Your task to perform on an android device: Search for "jbl flip 4" on ebay, select the first entry, add it to the cart, then select checkout. Image 0: 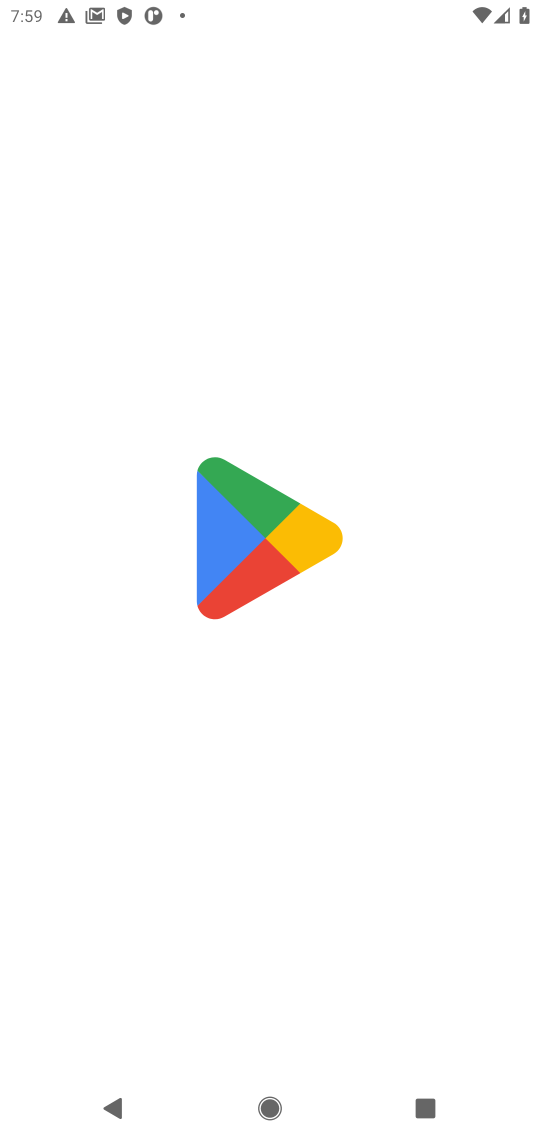
Step 0: press home button
Your task to perform on an android device: Search for "jbl flip 4" on ebay, select the first entry, add it to the cart, then select checkout. Image 1: 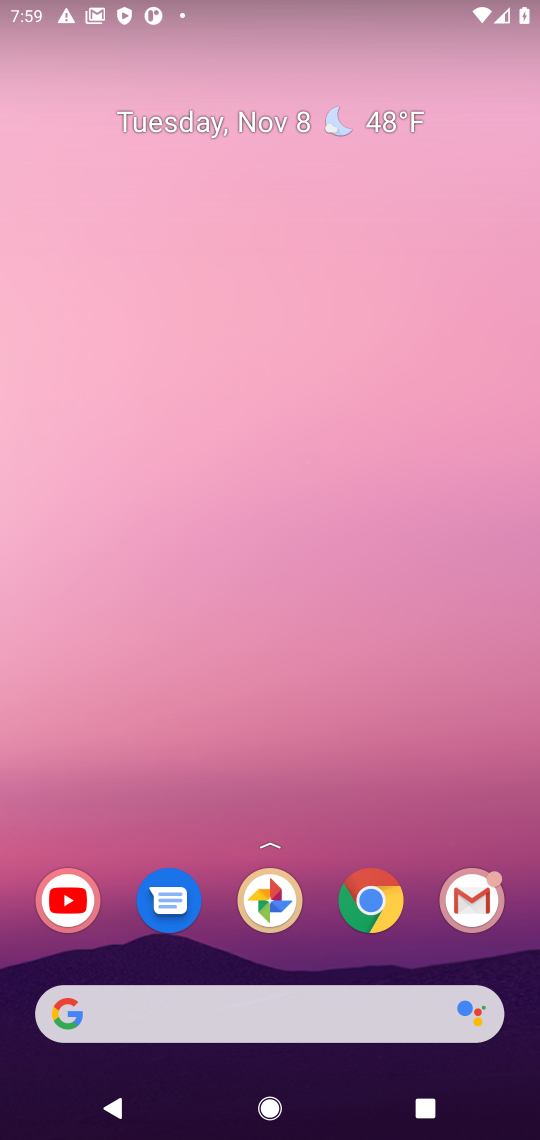
Step 1: click (376, 887)
Your task to perform on an android device: Search for "jbl flip 4" on ebay, select the first entry, add it to the cart, then select checkout. Image 2: 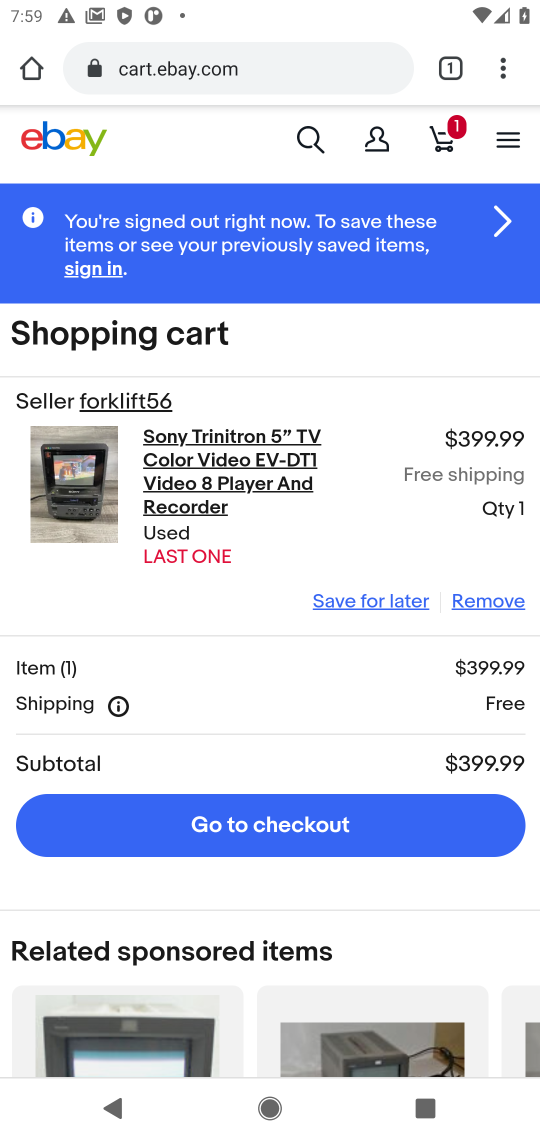
Step 2: click (147, 69)
Your task to perform on an android device: Search for "jbl flip 4" on ebay, select the first entry, add it to the cart, then select checkout. Image 3: 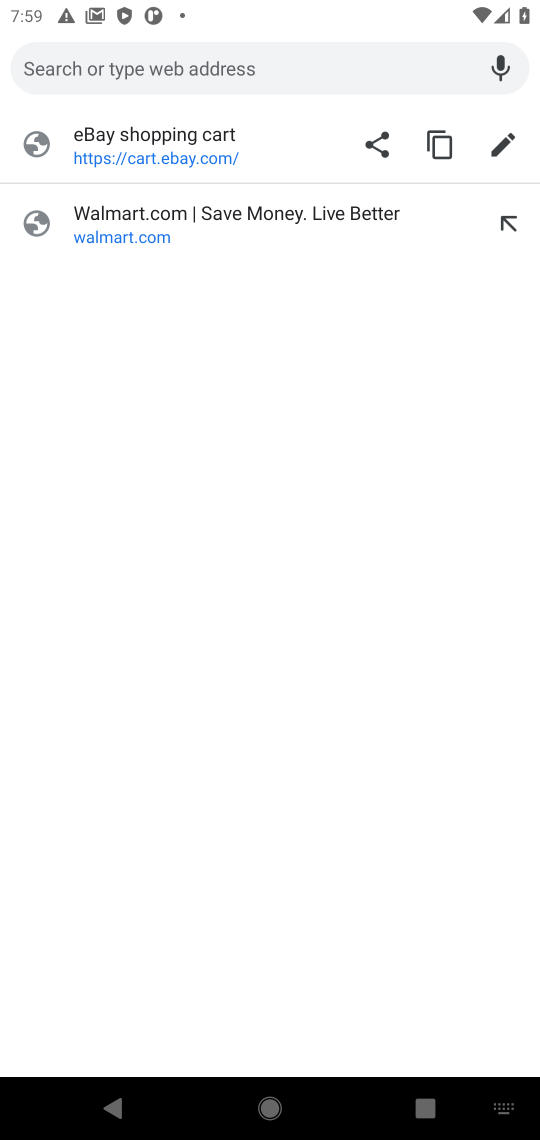
Step 3: type "ebay"
Your task to perform on an android device: Search for "jbl flip 4" on ebay, select the first entry, add it to the cart, then select checkout. Image 4: 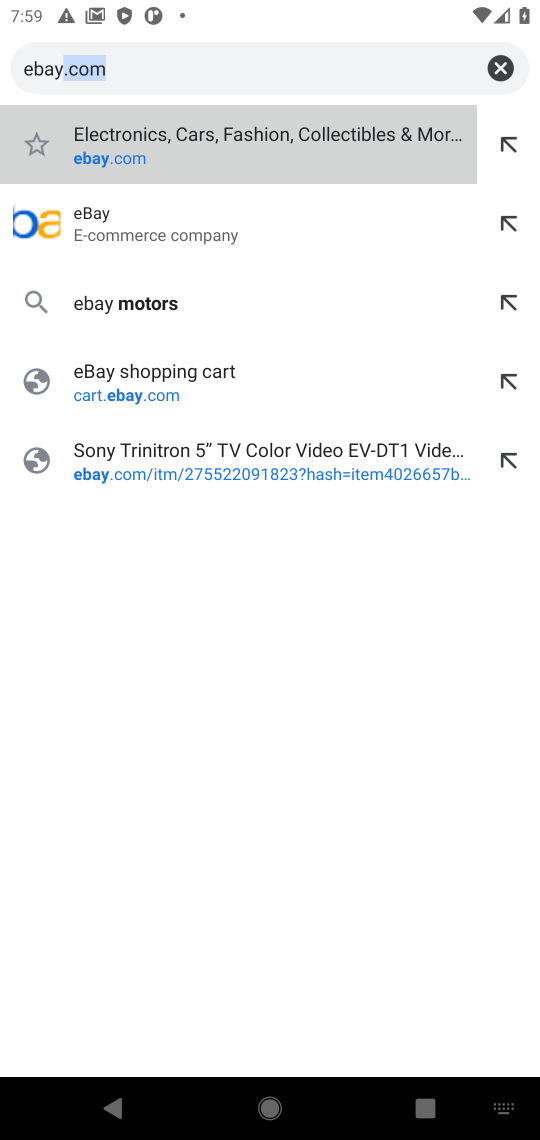
Step 4: type ""
Your task to perform on an android device: Search for "jbl flip 4" on ebay, select the first entry, add it to the cart, then select checkout. Image 5: 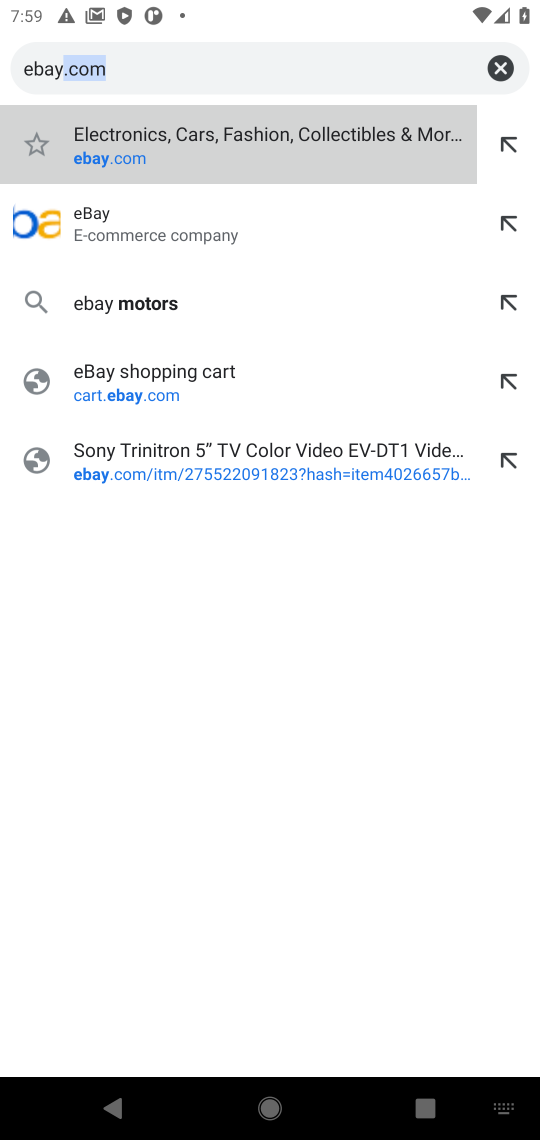
Step 5: click (86, 219)
Your task to perform on an android device: Search for "jbl flip 4" on ebay, select the first entry, add it to the cart, then select checkout. Image 6: 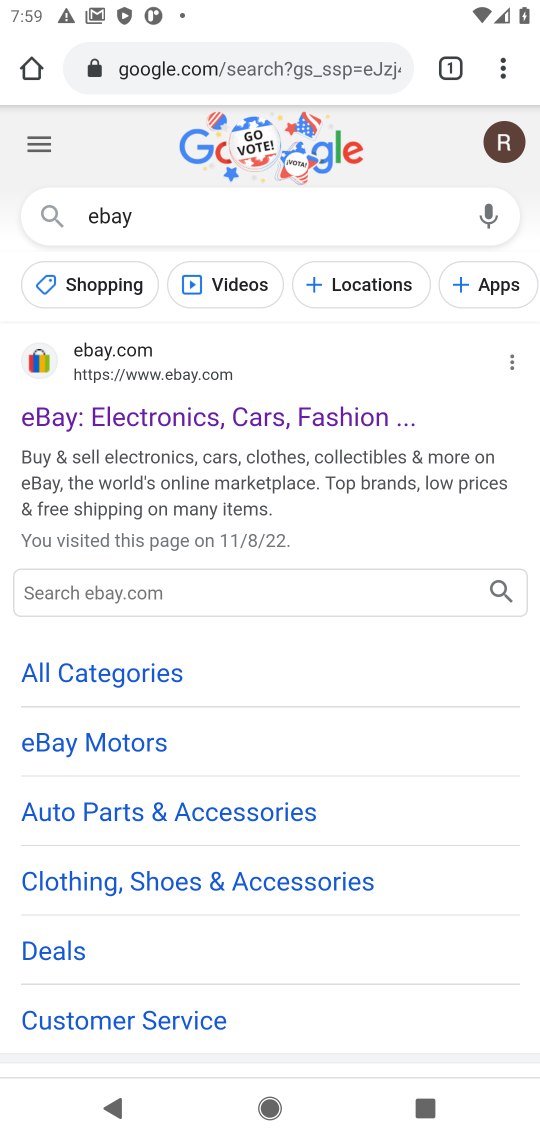
Step 6: click (121, 423)
Your task to perform on an android device: Search for "jbl flip 4" on ebay, select the first entry, add it to the cart, then select checkout. Image 7: 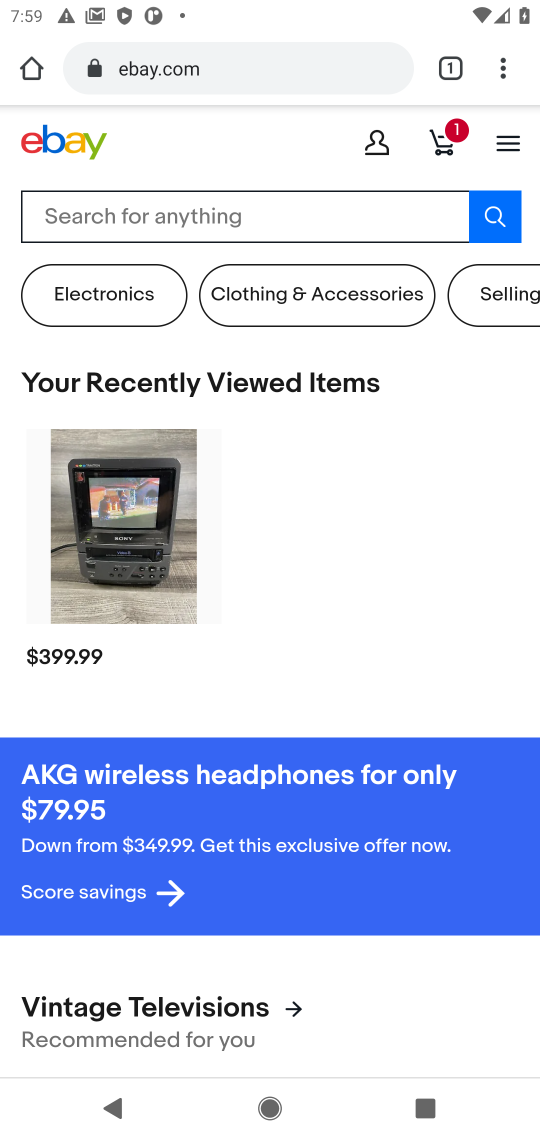
Step 7: drag from (257, 723) to (299, 528)
Your task to perform on an android device: Search for "jbl flip 4" on ebay, select the first entry, add it to the cart, then select checkout. Image 8: 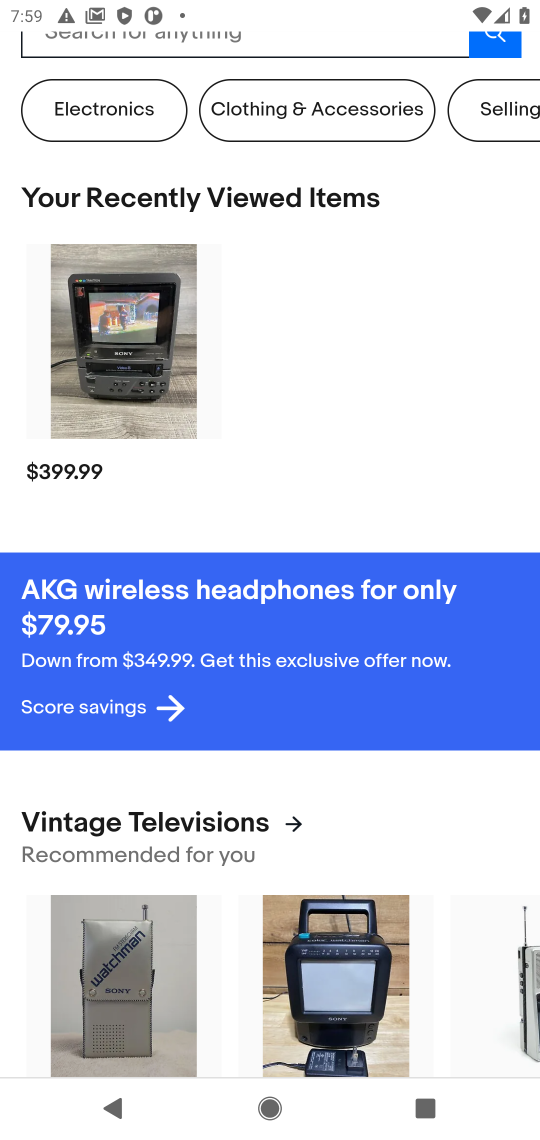
Step 8: drag from (292, 335) to (292, 742)
Your task to perform on an android device: Search for "jbl flip 4" on ebay, select the first entry, add it to the cart, then select checkout. Image 9: 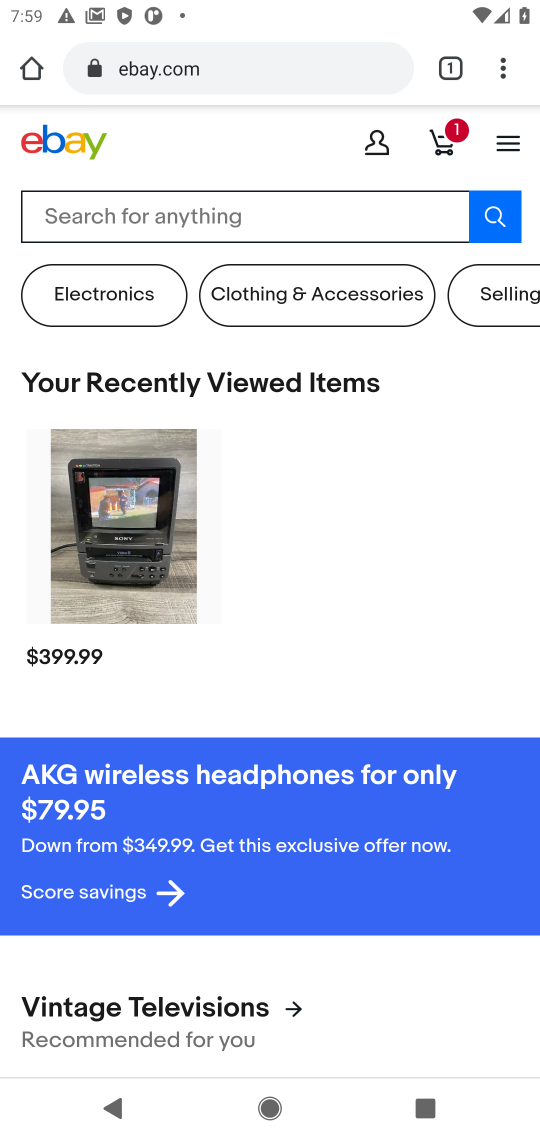
Step 9: click (117, 211)
Your task to perform on an android device: Search for "jbl flip 4" on ebay, select the first entry, add it to the cart, then select checkout. Image 10: 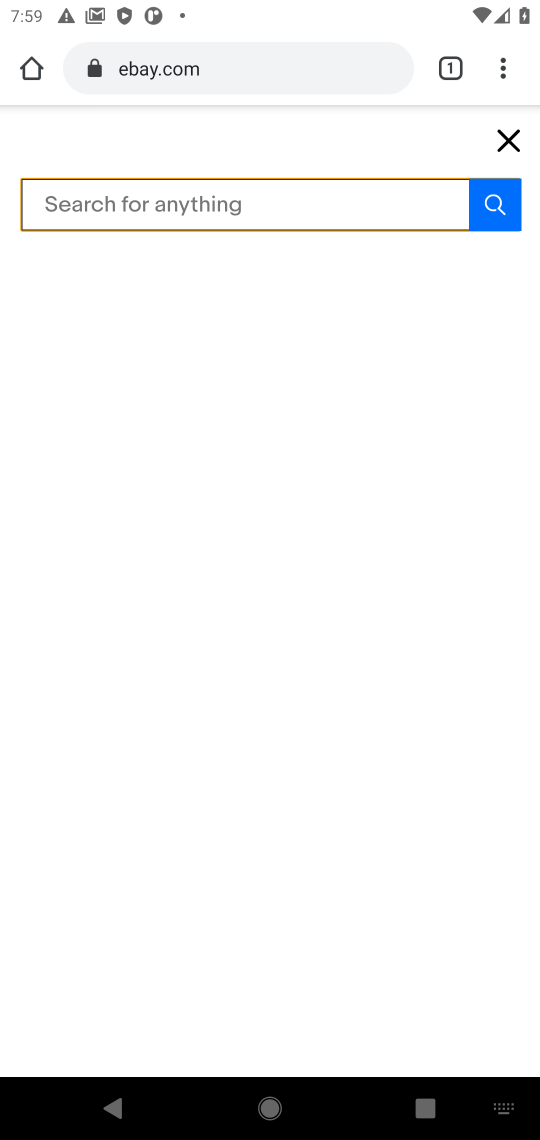
Step 10: type "jbl flip 4"
Your task to perform on an android device: Search for "jbl flip 4" on ebay, select the first entry, add it to the cart, then select checkout. Image 11: 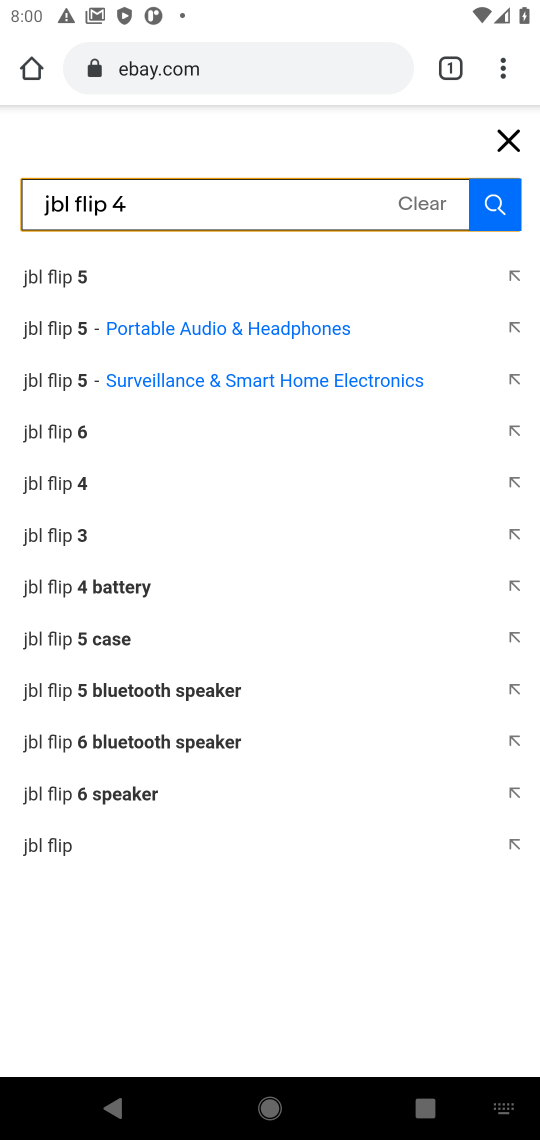
Step 11: click (55, 483)
Your task to perform on an android device: Search for "jbl flip 4" on ebay, select the first entry, add it to the cart, then select checkout. Image 12: 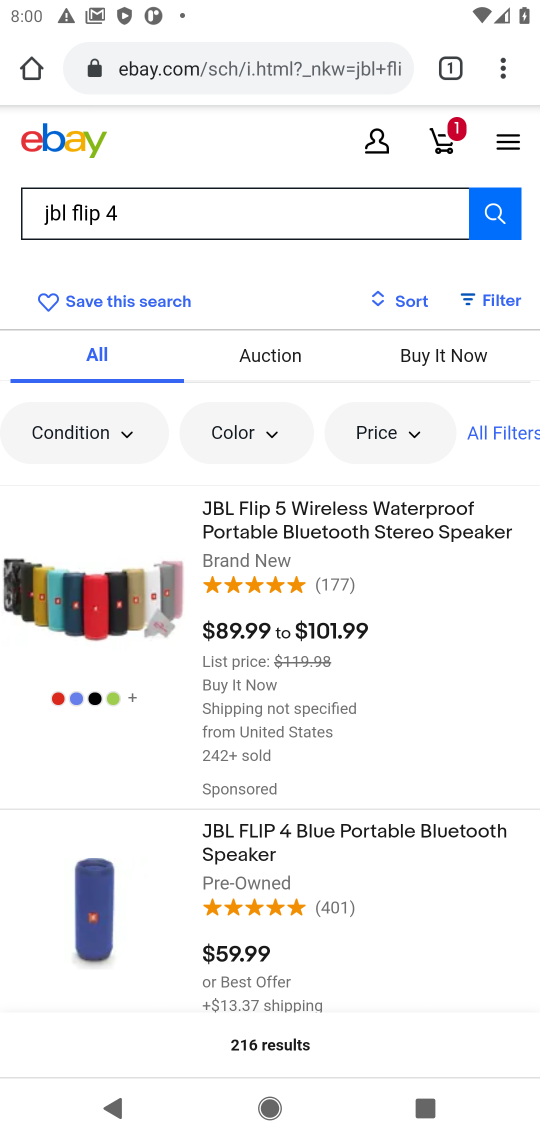
Step 12: click (244, 832)
Your task to perform on an android device: Search for "jbl flip 4" on ebay, select the first entry, add it to the cart, then select checkout. Image 13: 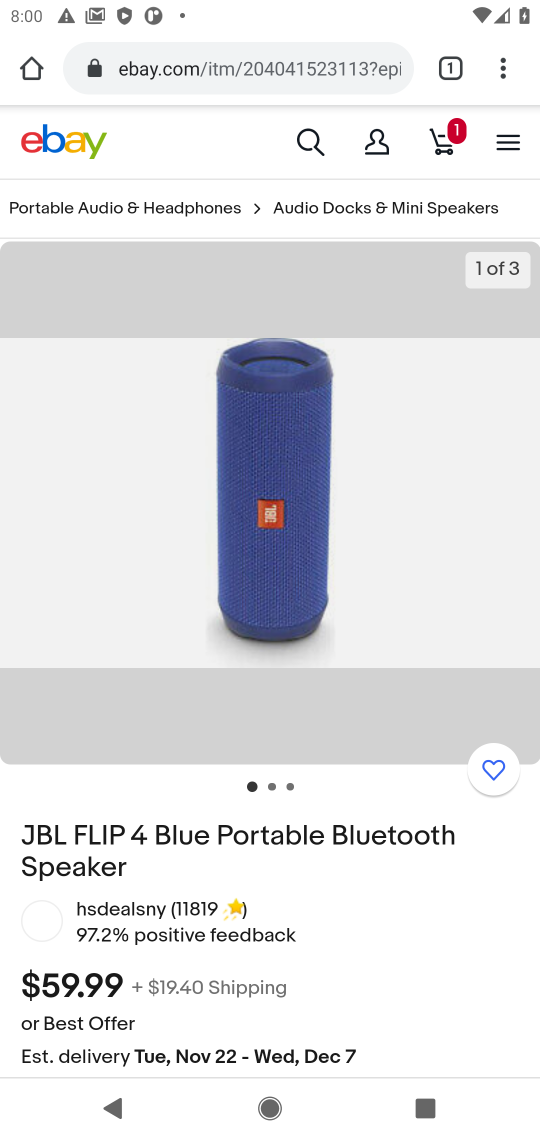
Step 13: drag from (319, 927) to (329, 512)
Your task to perform on an android device: Search for "jbl flip 4" on ebay, select the first entry, add it to the cart, then select checkout. Image 14: 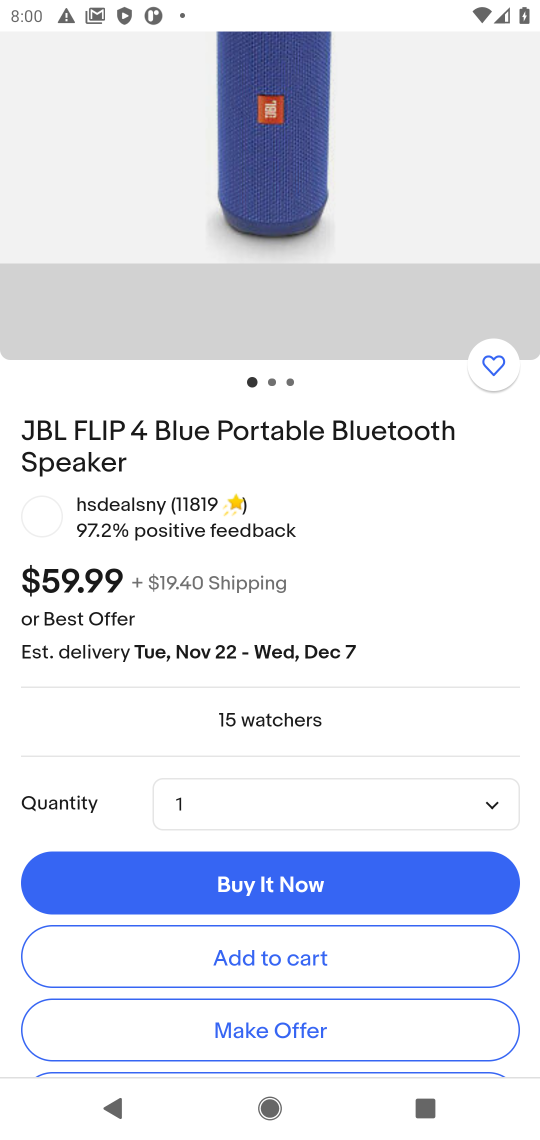
Step 14: click (298, 957)
Your task to perform on an android device: Search for "jbl flip 4" on ebay, select the first entry, add it to the cart, then select checkout. Image 15: 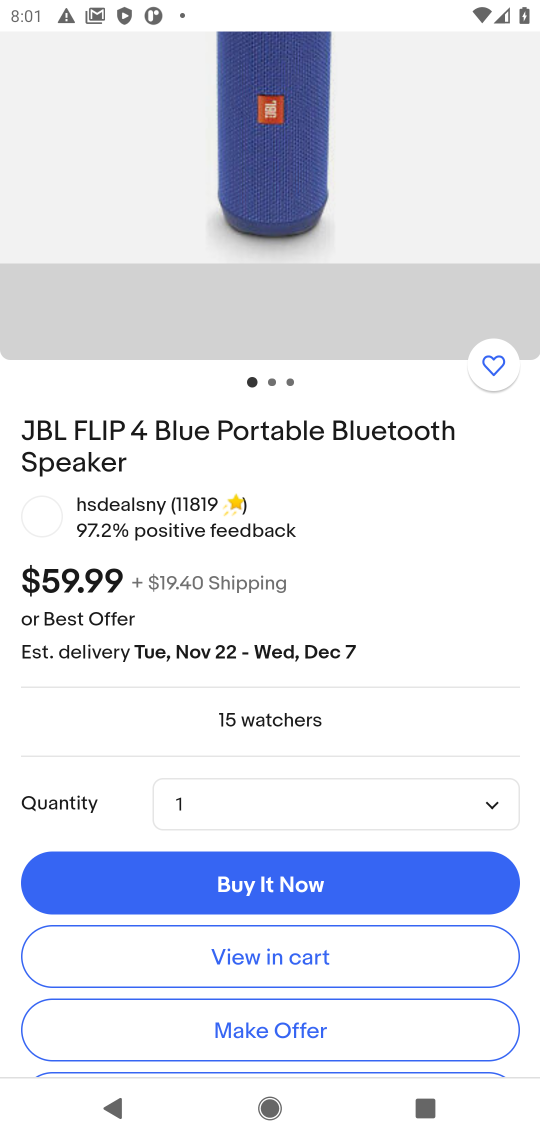
Step 15: click (296, 959)
Your task to perform on an android device: Search for "jbl flip 4" on ebay, select the first entry, add it to the cart, then select checkout. Image 16: 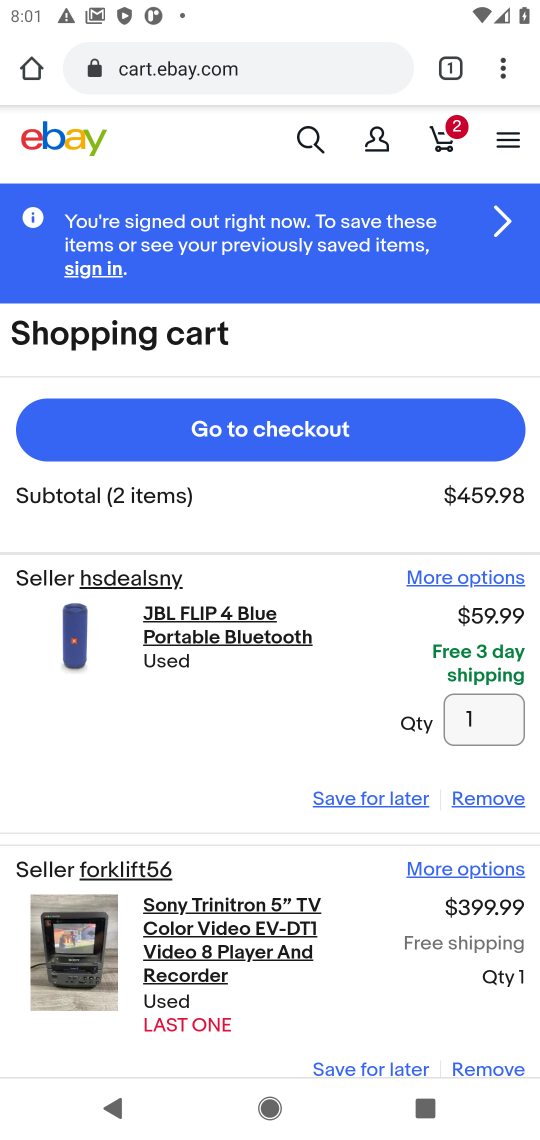
Step 16: click (281, 424)
Your task to perform on an android device: Search for "jbl flip 4" on ebay, select the first entry, add it to the cart, then select checkout. Image 17: 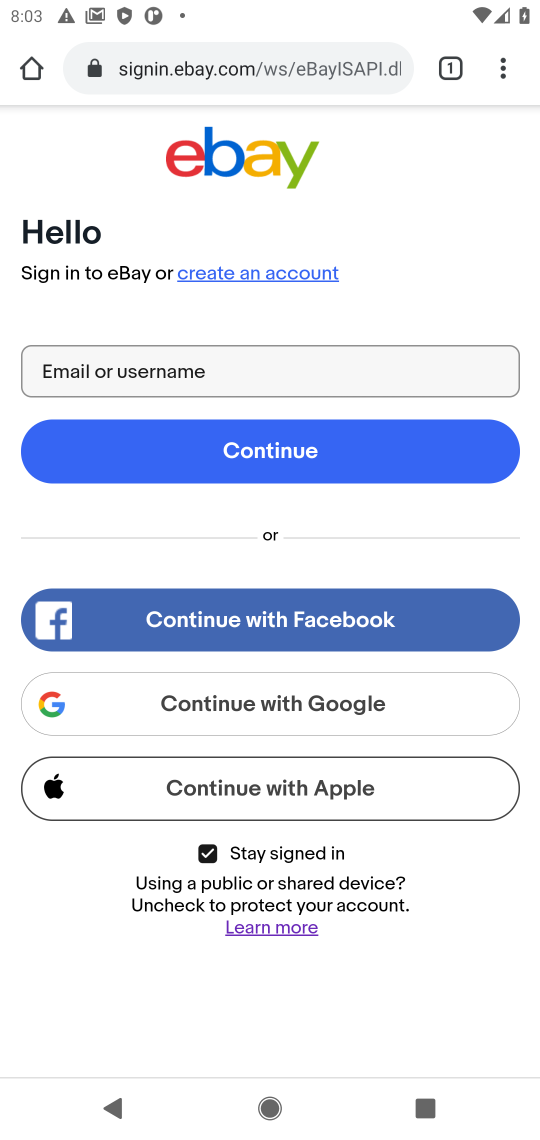
Step 17: task complete